Your task to perform on an android device: Open wifi settings Image 0: 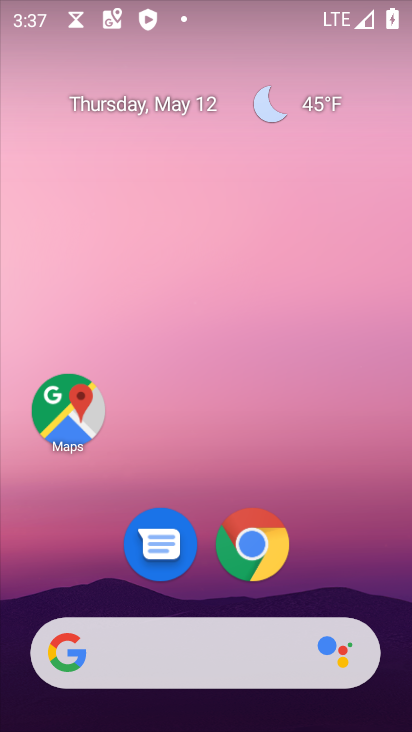
Step 0: drag from (317, 588) to (211, 53)
Your task to perform on an android device: Open wifi settings Image 1: 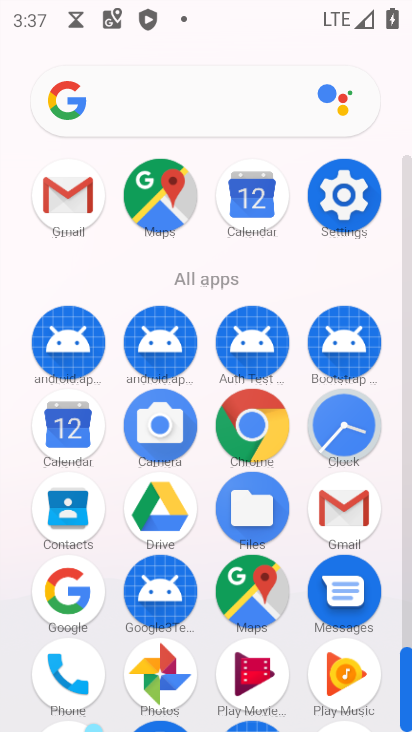
Step 1: click (337, 183)
Your task to perform on an android device: Open wifi settings Image 2: 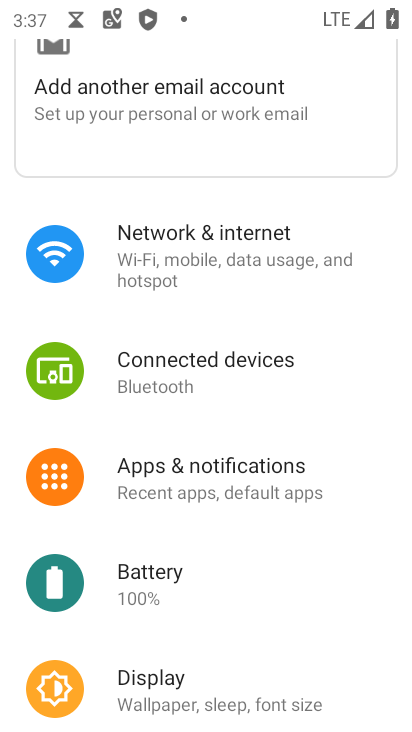
Step 2: click (188, 275)
Your task to perform on an android device: Open wifi settings Image 3: 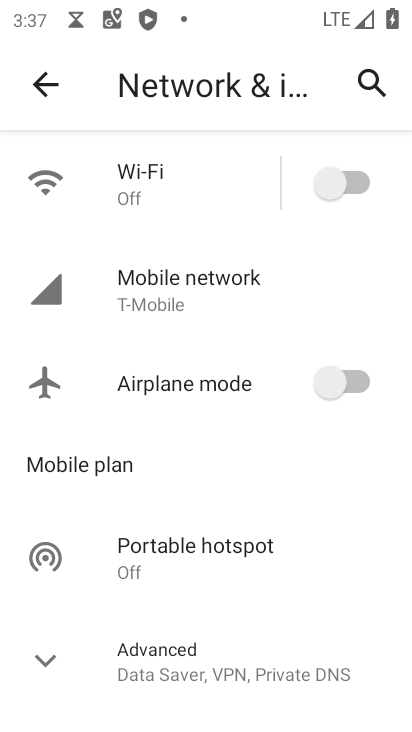
Step 3: click (136, 178)
Your task to perform on an android device: Open wifi settings Image 4: 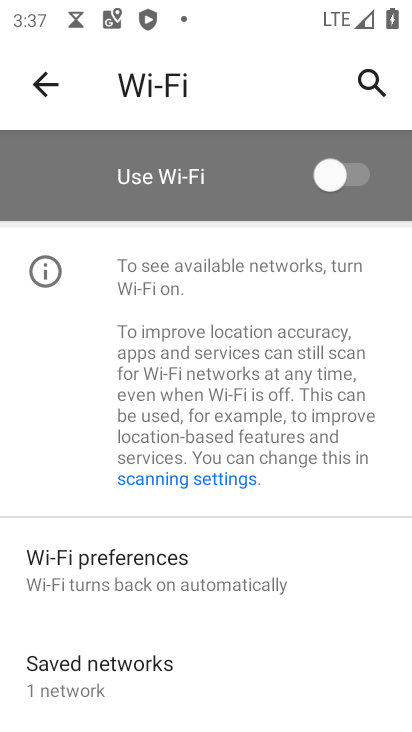
Step 4: task complete